Your task to perform on an android device: add a contact Image 0: 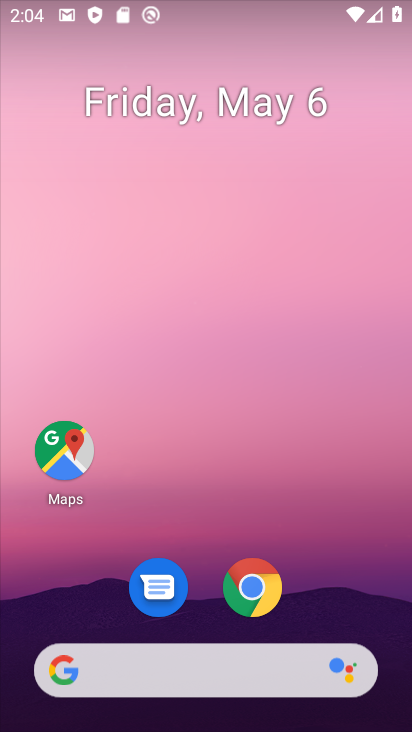
Step 0: drag from (326, 497) to (311, 106)
Your task to perform on an android device: add a contact Image 1: 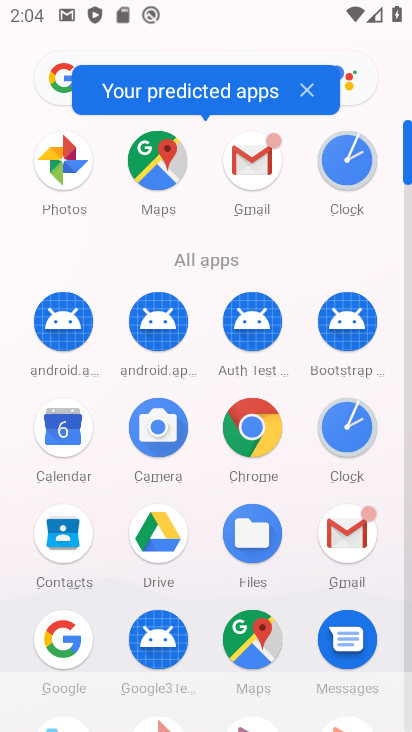
Step 1: click (61, 523)
Your task to perform on an android device: add a contact Image 2: 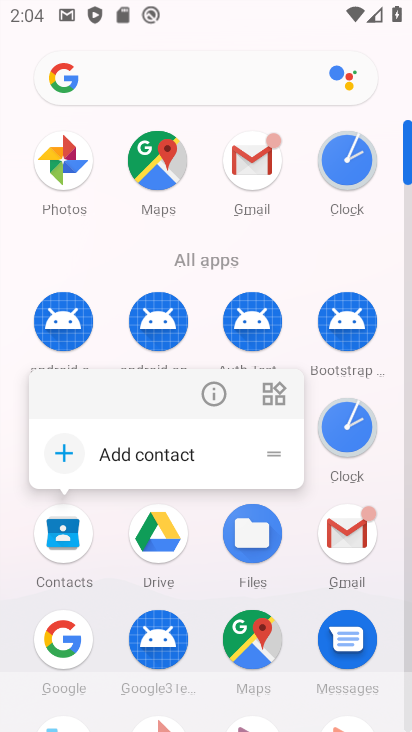
Step 2: click (61, 523)
Your task to perform on an android device: add a contact Image 3: 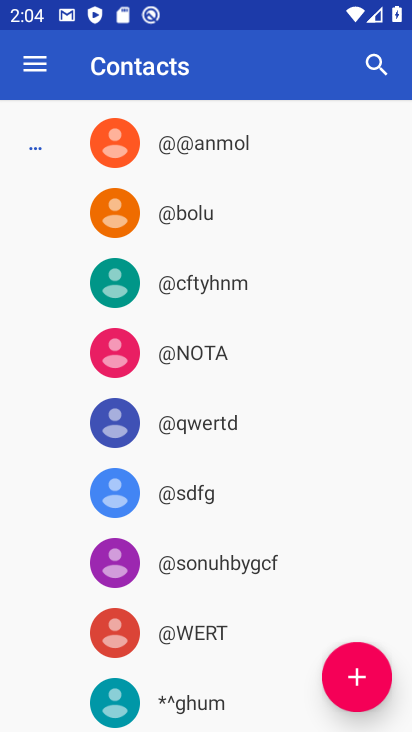
Step 3: click (366, 671)
Your task to perform on an android device: add a contact Image 4: 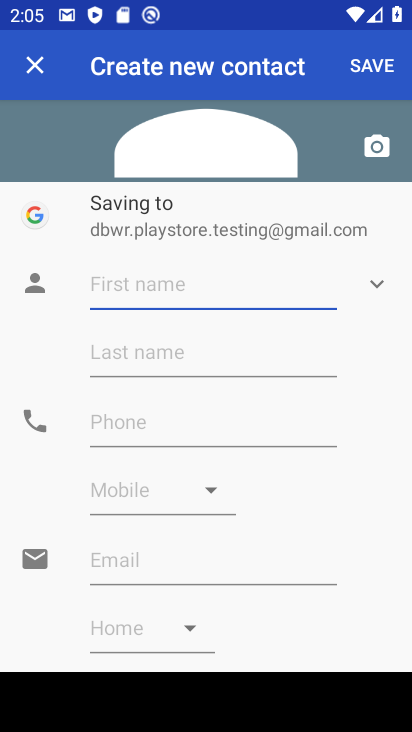
Step 4: type "Roddhi"
Your task to perform on an android device: add a contact Image 5: 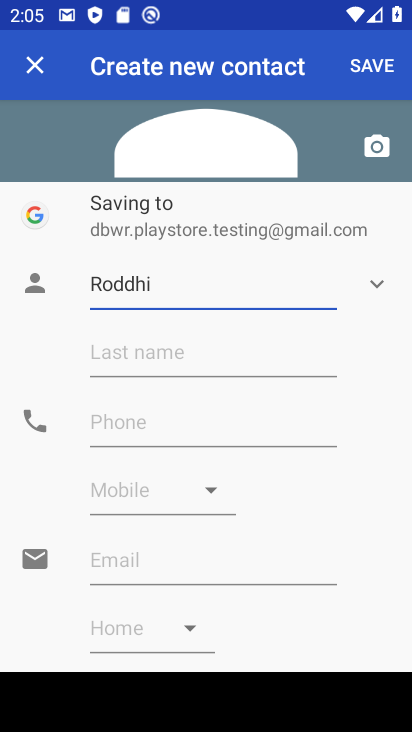
Step 5: click (189, 431)
Your task to perform on an android device: add a contact Image 6: 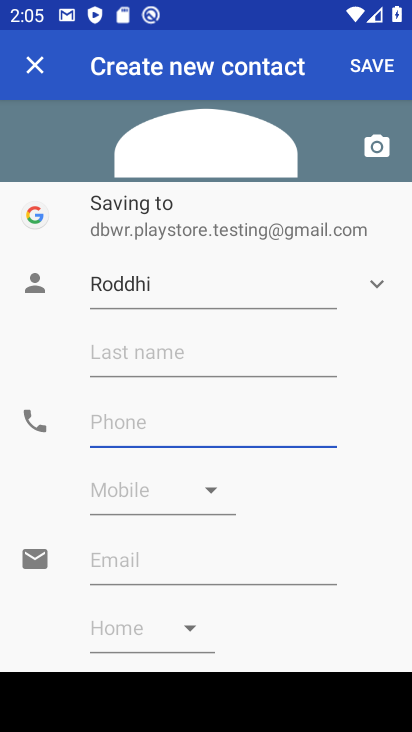
Step 6: type "0112299885533"
Your task to perform on an android device: add a contact Image 7: 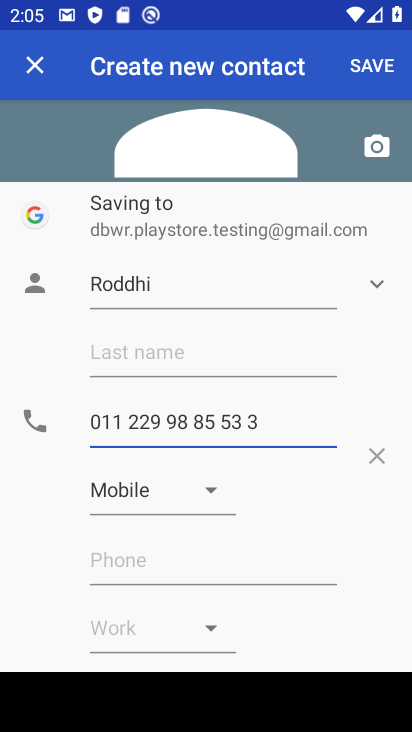
Step 7: click (268, 421)
Your task to perform on an android device: add a contact Image 8: 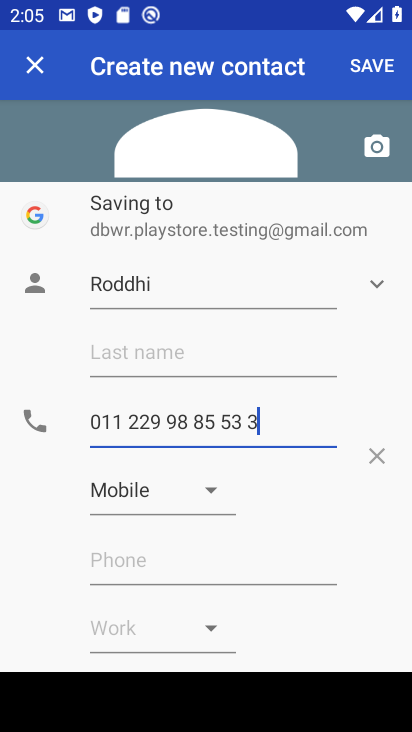
Step 8: click (384, 67)
Your task to perform on an android device: add a contact Image 9: 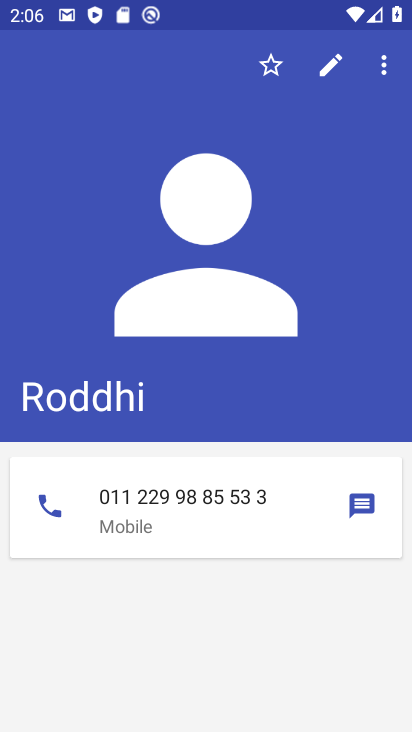
Step 9: task complete